Your task to perform on an android device: turn off javascript in the chrome app Image 0: 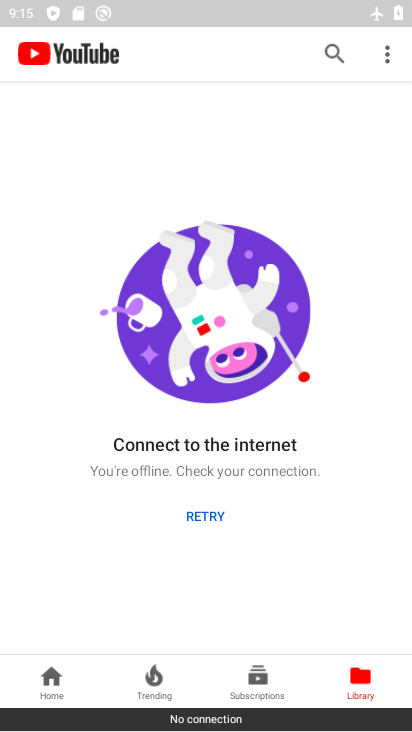
Step 0: press home button
Your task to perform on an android device: turn off javascript in the chrome app Image 1: 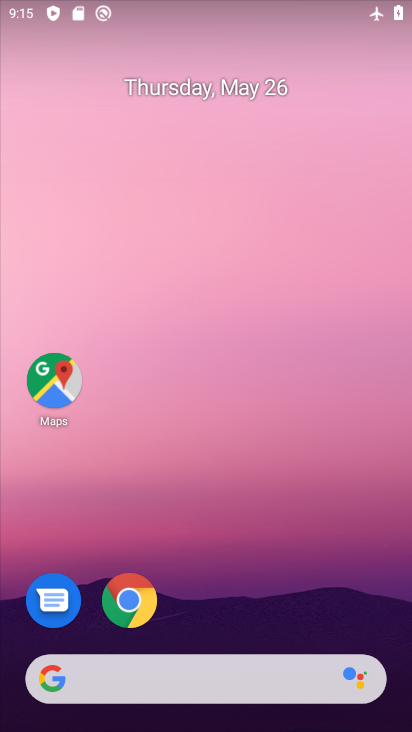
Step 1: click (129, 599)
Your task to perform on an android device: turn off javascript in the chrome app Image 2: 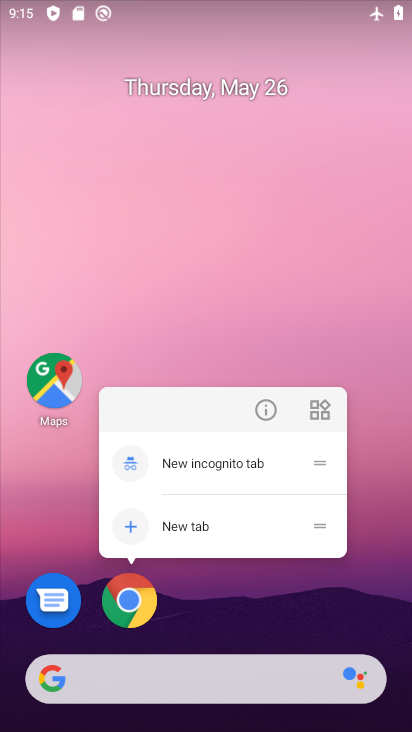
Step 2: click (129, 599)
Your task to perform on an android device: turn off javascript in the chrome app Image 3: 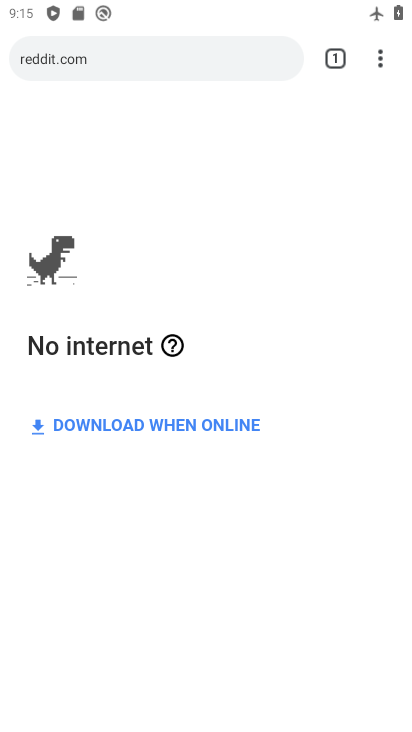
Step 3: drag from (390, 48) to (174, 605)
Your task to perform on an android device: turn off javascript in the chrome app Image 4: 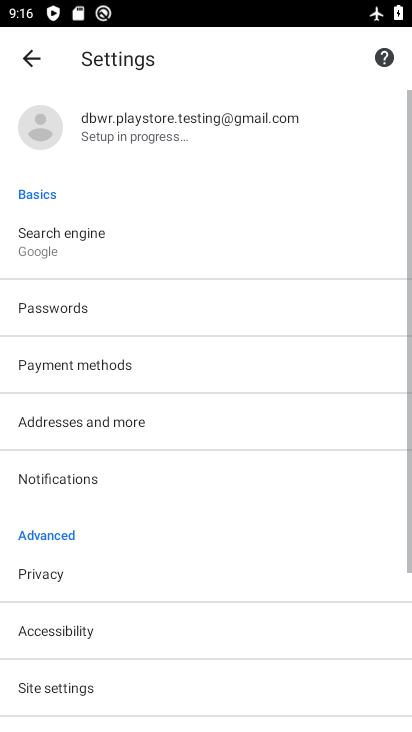
Step 4: drag from (242, 579) to (276, 174)
Your task to perform on an android device: turn off javascript in the chrome app Image 5: 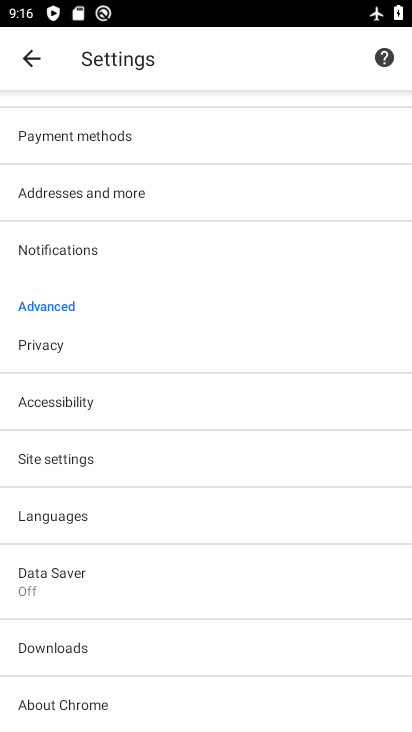
Step 5: click (128, 461)
Your task to perform on an android device: turn off javascript in the chrome app Image 6: 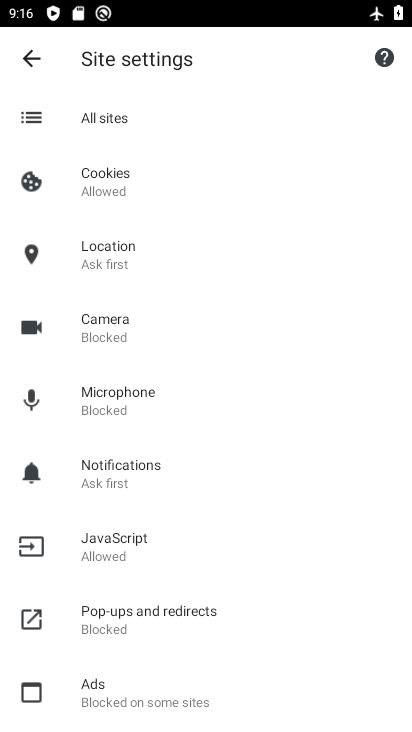
Step 6: click (131, 537)
Your task to perform on an android device: turn off javascript in the chrome app Image 7: 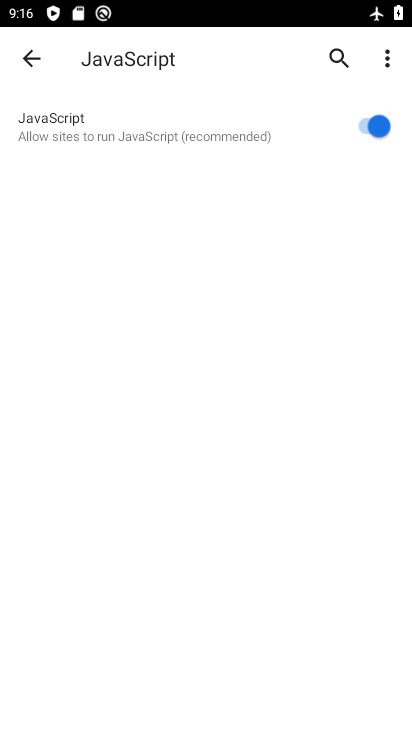
Step 7: click (354, 123)
Your task to perform on an android device: turn off javascript in the chrome app Image 8: 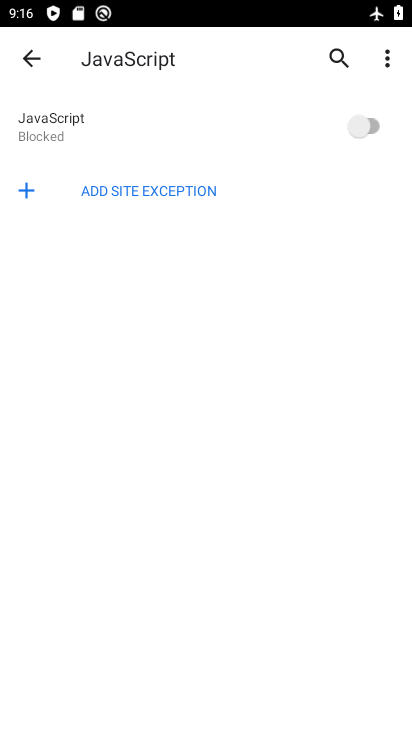
Step 8: task complete